Your task to perform on an android device: turn off notifications settings in the gmail app Image 0: 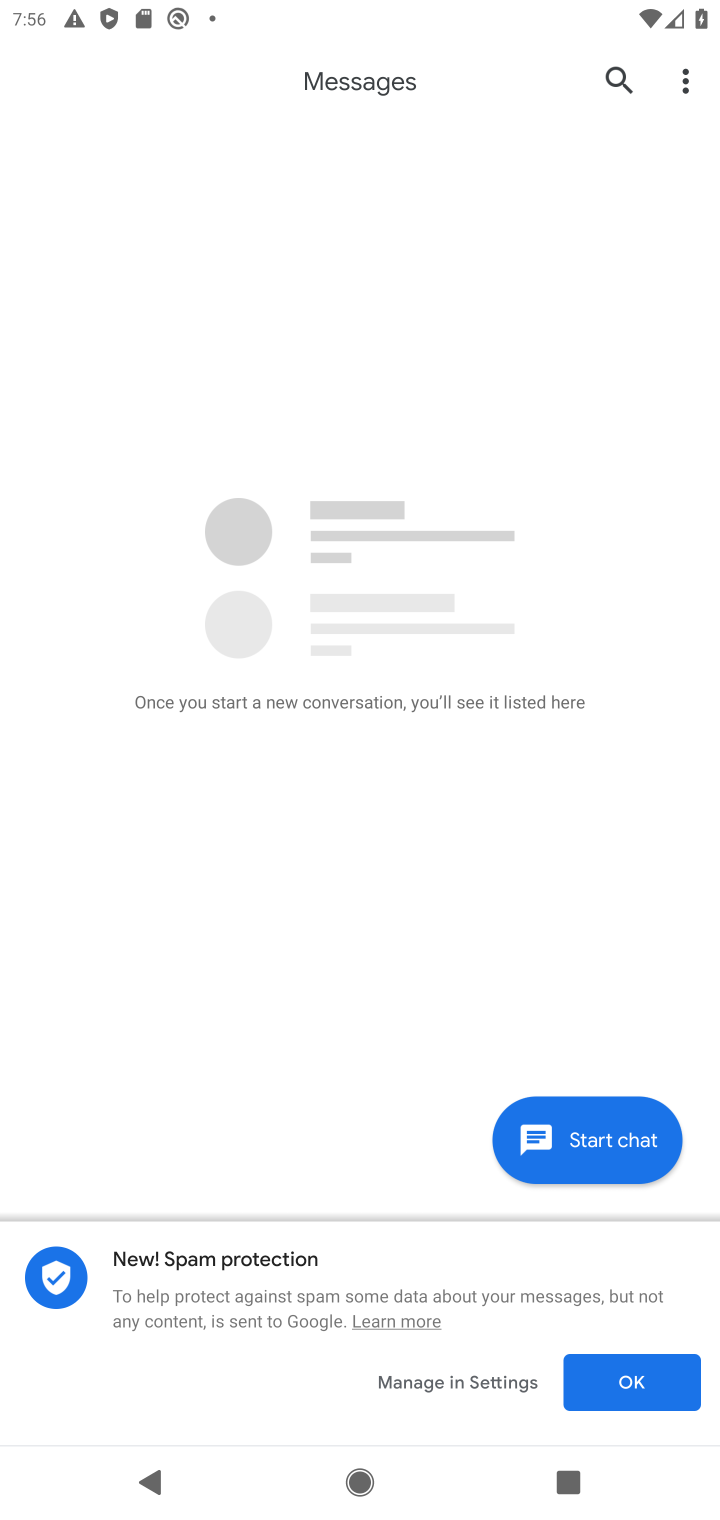
Step 0: press back button
Your task to perform on an android device: turn off notifications settings in the gmail app Image 1: 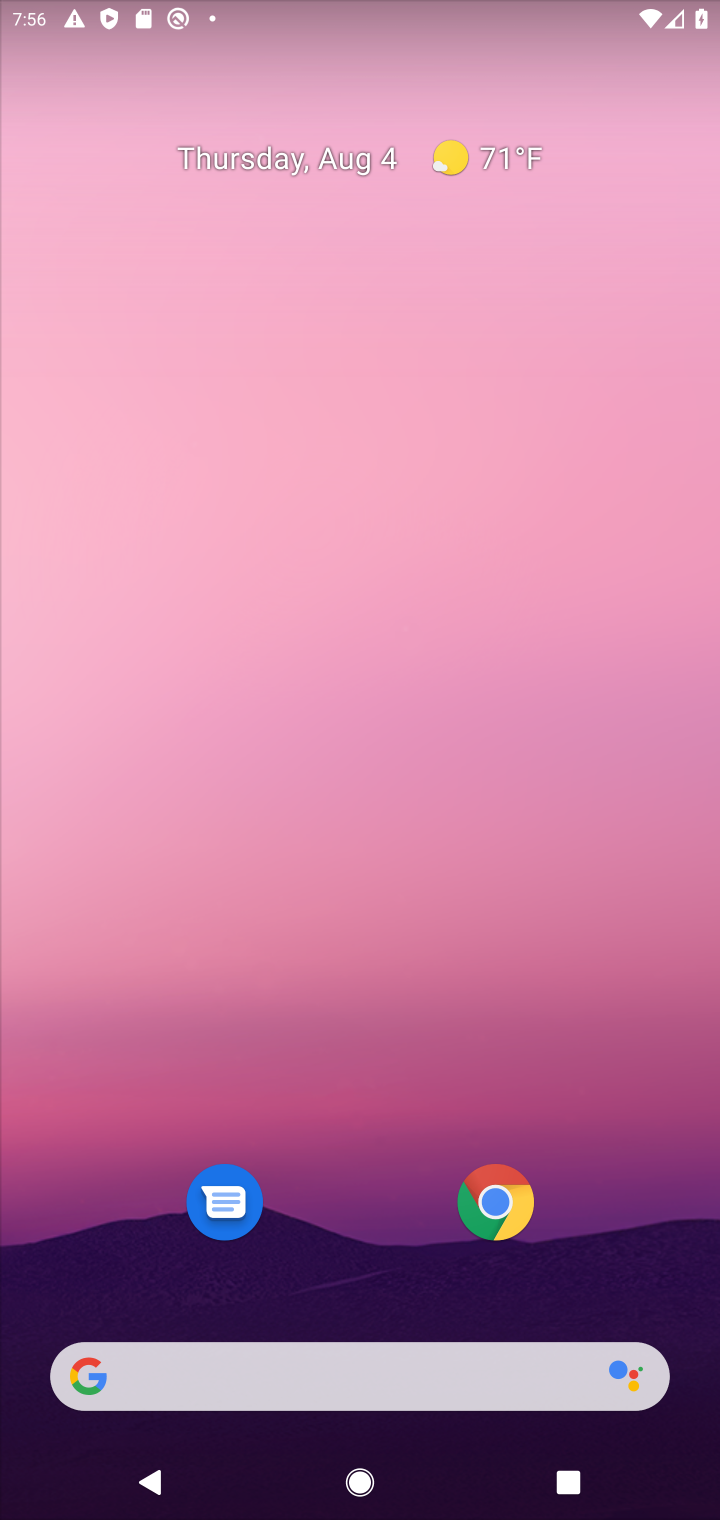
Step 1: drag from (338, 1236) to (338, 476)
Your task to perform on an android device: turn off notifications settings in the gmail app Image 2: 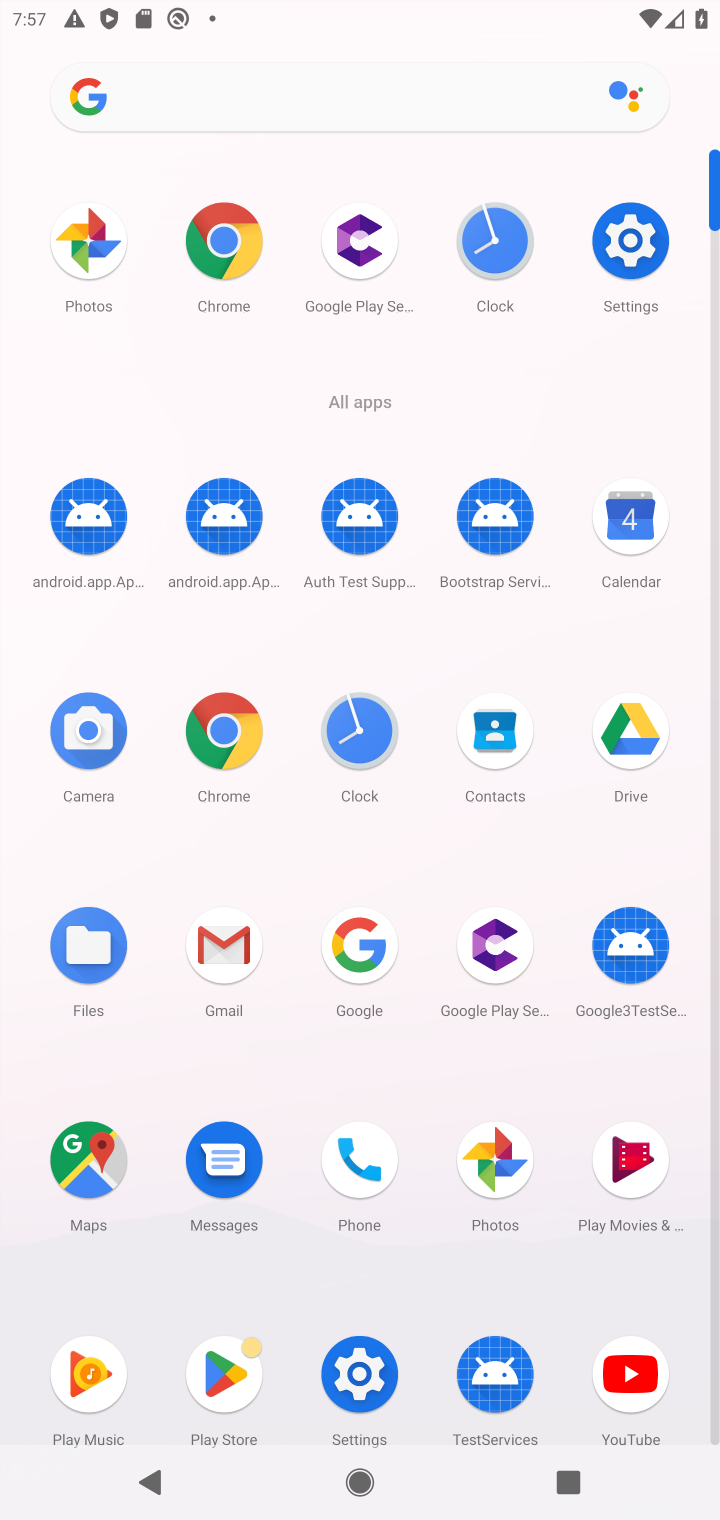
Step 2: click (245, 952)
Your task to perform on an android device: turn off notifications settings in the gmail app Image 3: 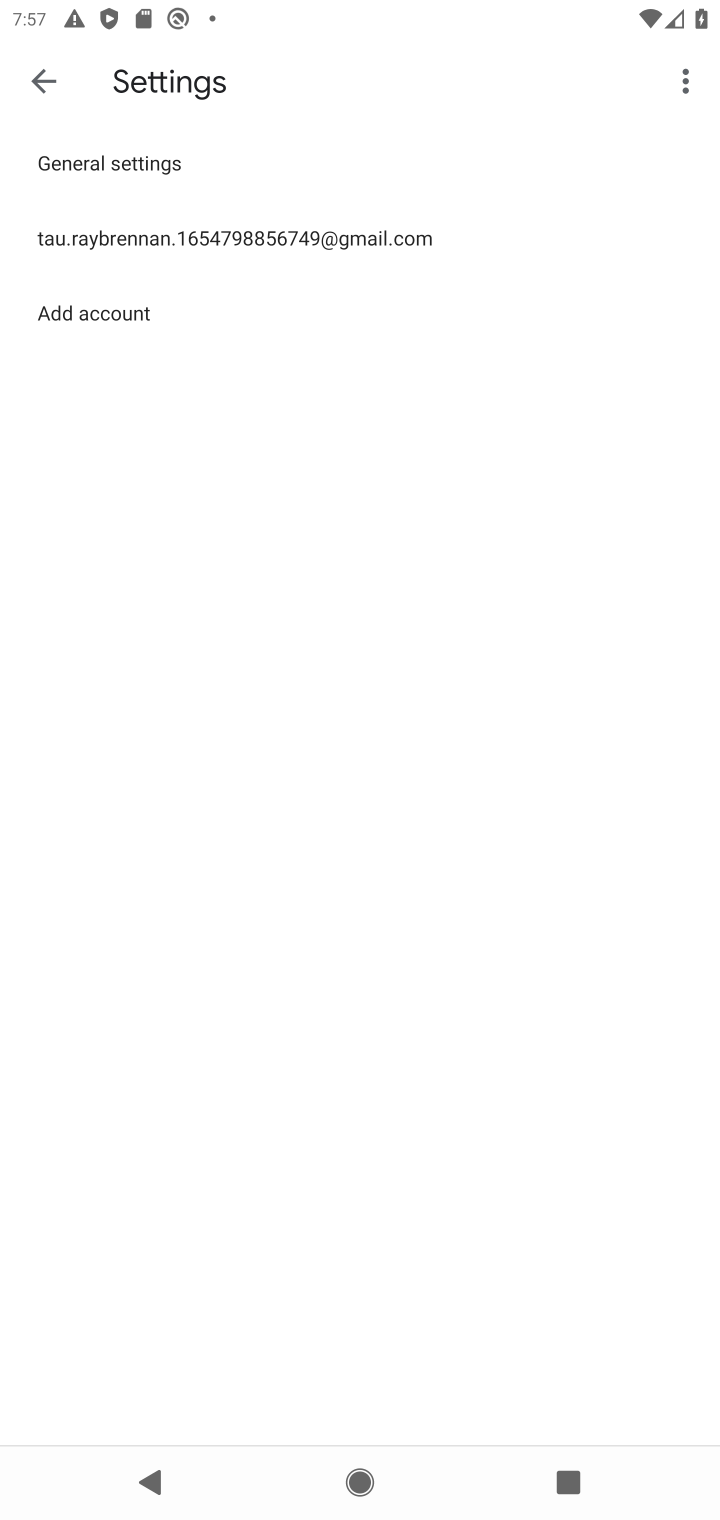
Step 3: click (194, 254)
Your task to perform on an android device: turn off notifications settings in the gmail app Image 4: 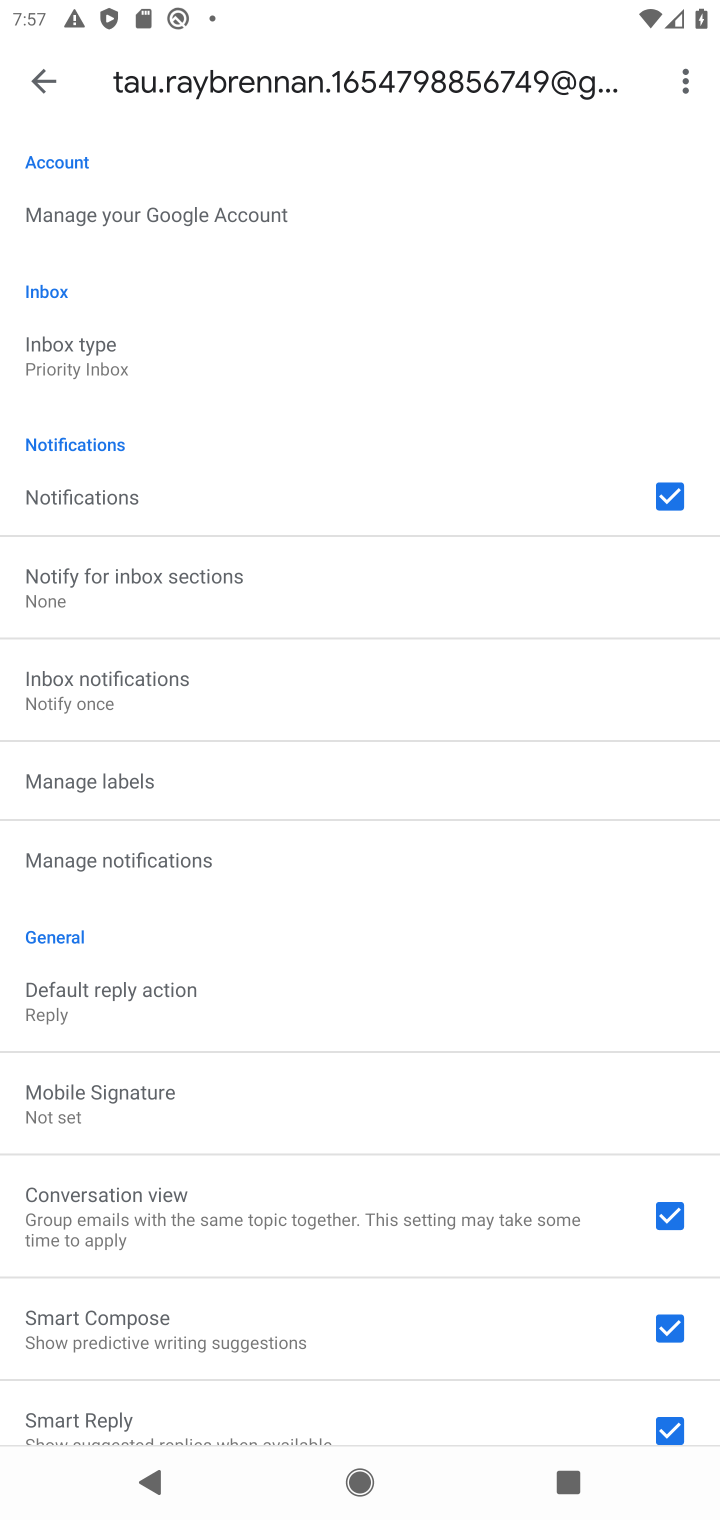
Step 4: click (230, 846)
Your task to perform on an android device: turn off notifications settings in the gmail app Image 5: 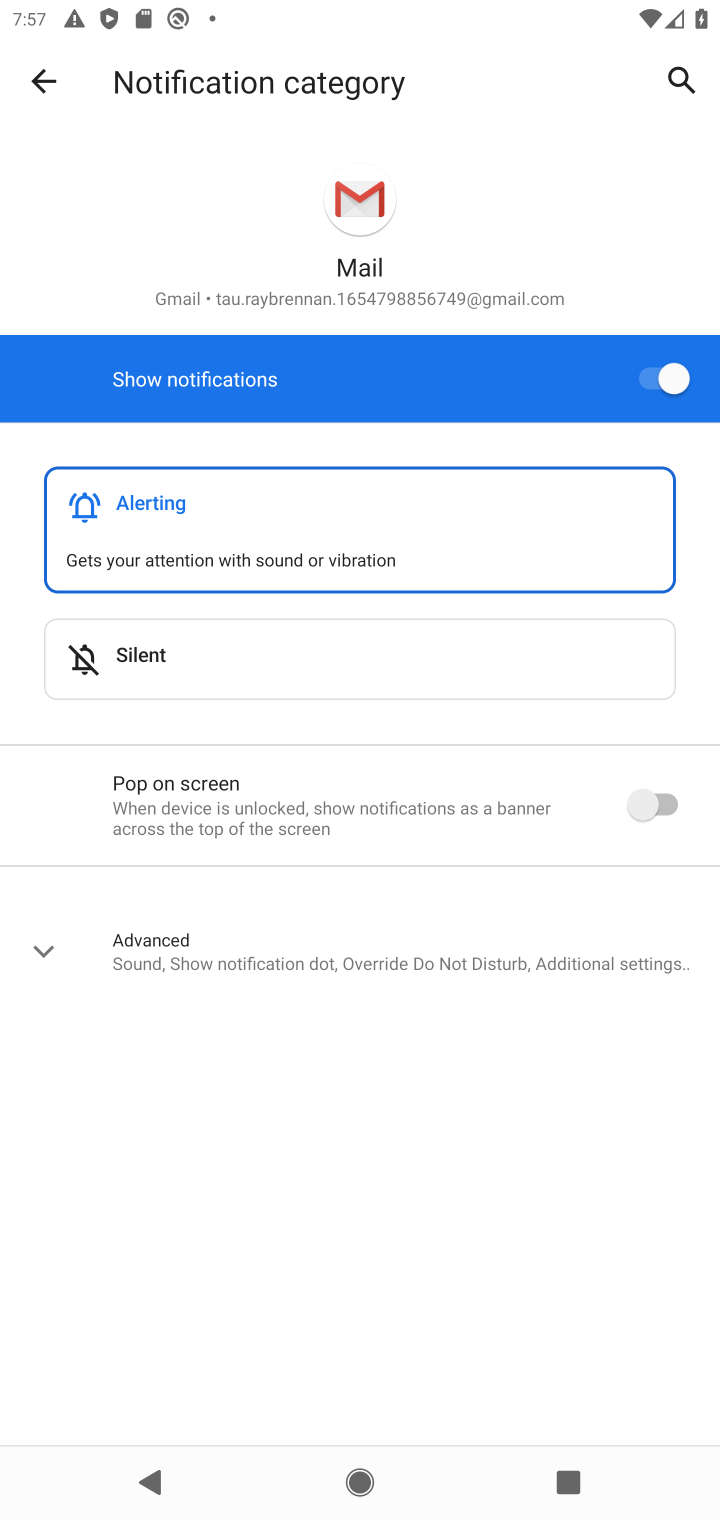
Step 5: click (660, 396)
Your task to perform on an android device: turn off notifications settings in the gmail app Image 6: 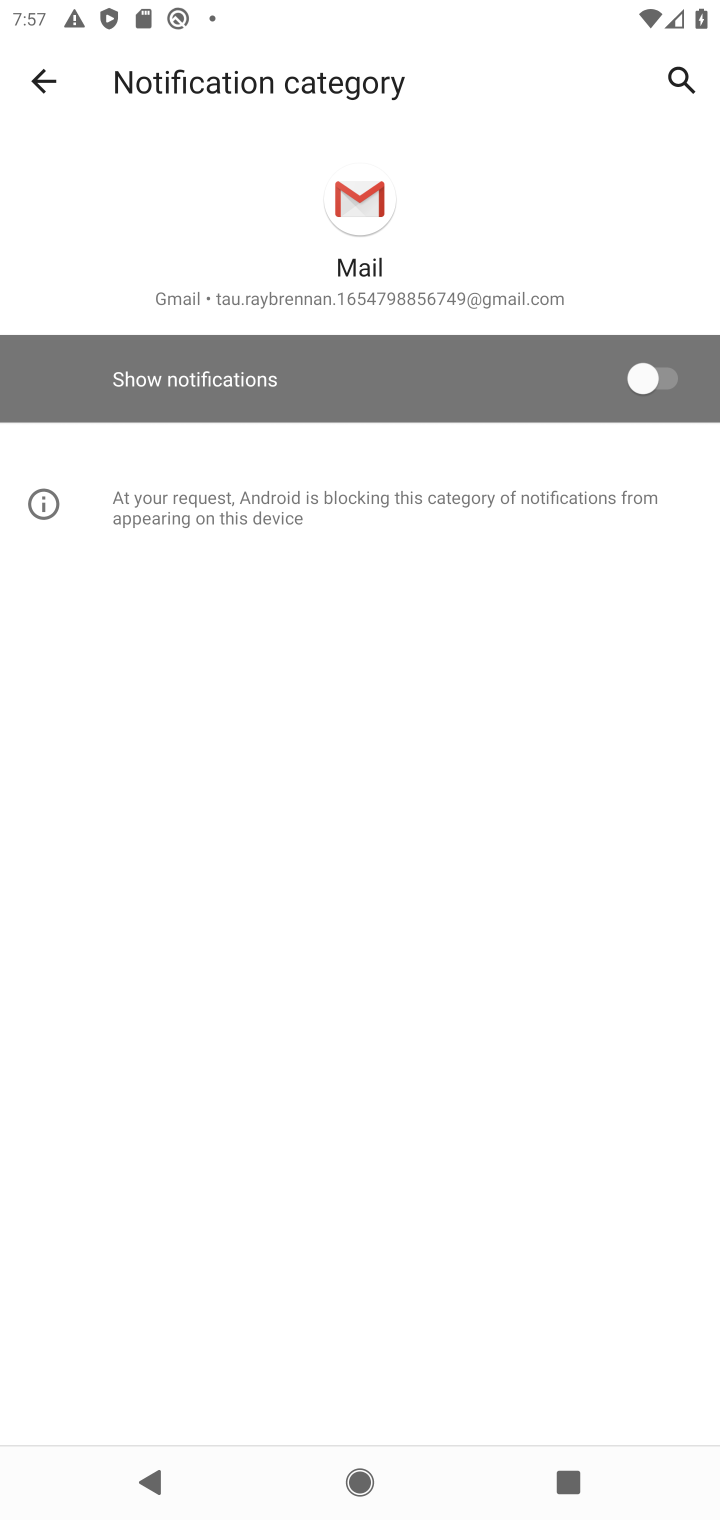
Step 6: task complete